Your task to perform on an android device: change keyboard looks Image 0: 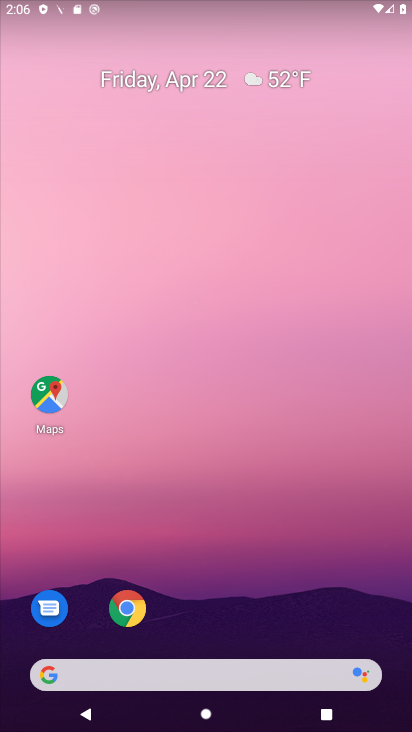
Step 0: drag from (282, 507) to (284, 121)
Your task to perform on an android device: change keyboard looks Image 1: 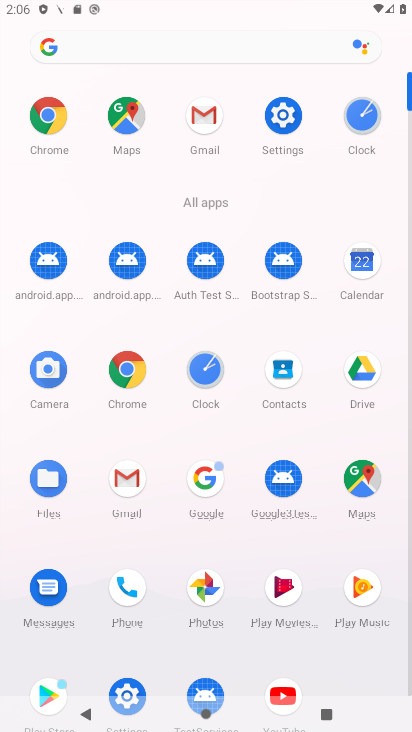
Step 1: click (287, 125)
Your task to perform on an android device: change keyboard looks Image 2: 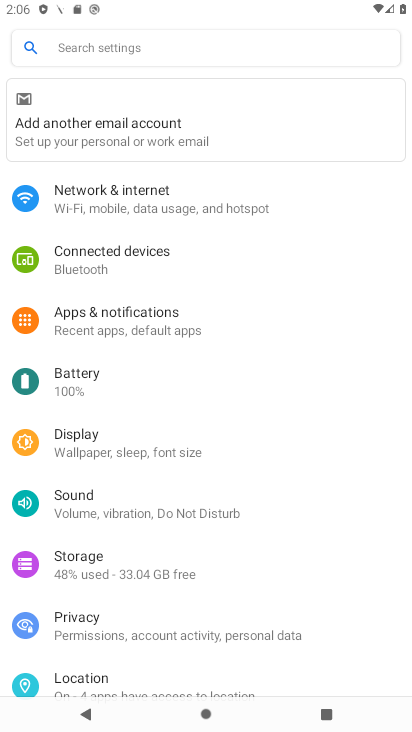
Step 2: drag from (189, 569) to (211, 244)
Your task to perform on an android device: change keyboard looks Image 3: 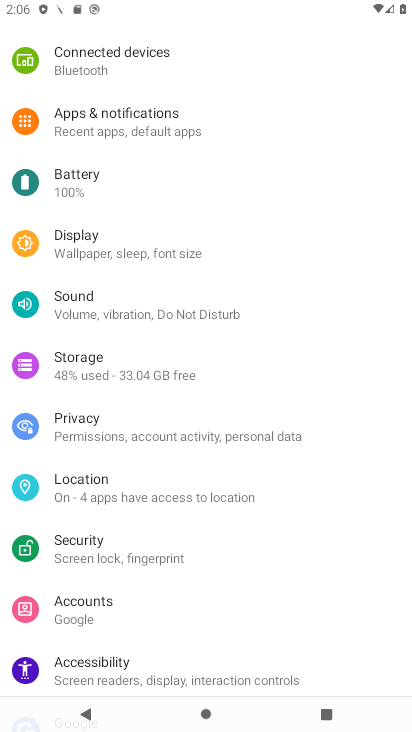
Step 3: drag from (253, 559) to (249, 197)
Your task to perform on an android device: change keyboard looks Image 4: 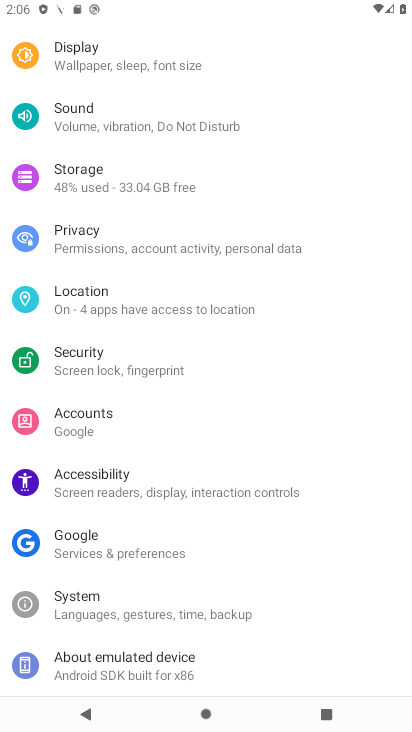
Step 4: click (183, 613)
Your task to perform on an android device: change keyboard looks Image 5: 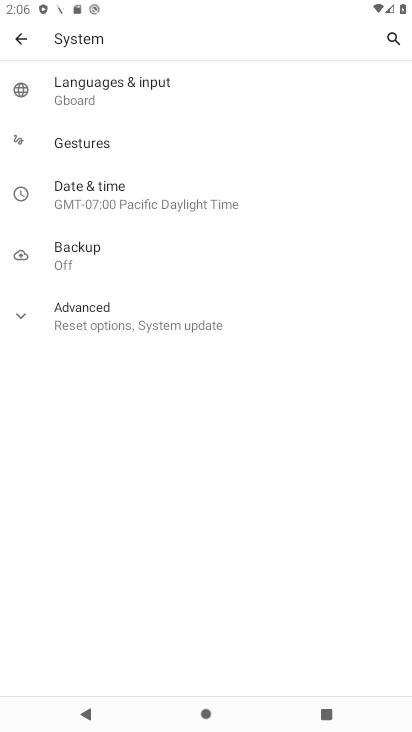
Step 5: click (136, 99)
Your task to perform on an android device: change keyboard looks Image 6: 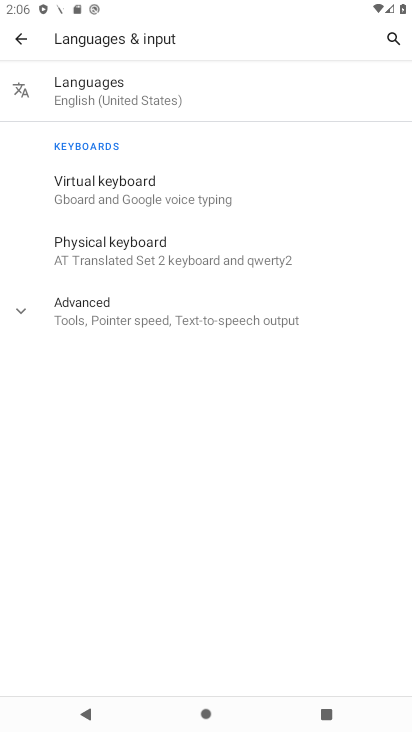
Step 6: click (132, 182)
Your task to perform on an android device: change keyboard looks Image 7: 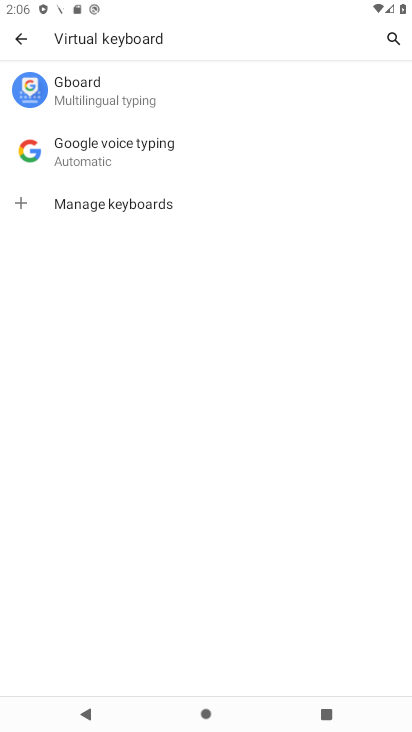
Step 7: click (130, 95)
Your task to perform on an android device: change keyboard looks Image 8: 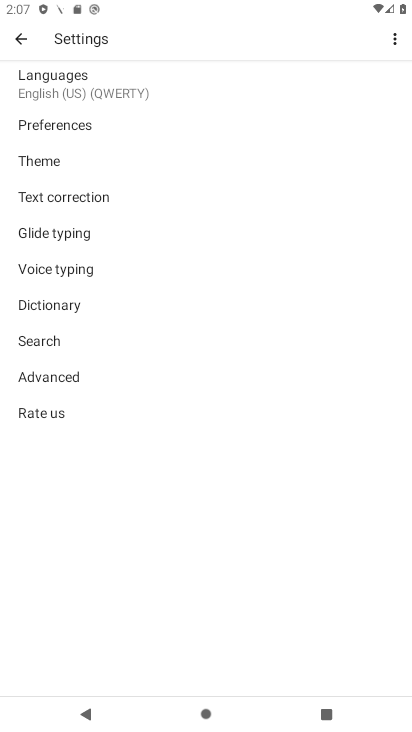
Step 8: click (39, 157)
Your task to perform on an android device: change keyboard looks Image 9: 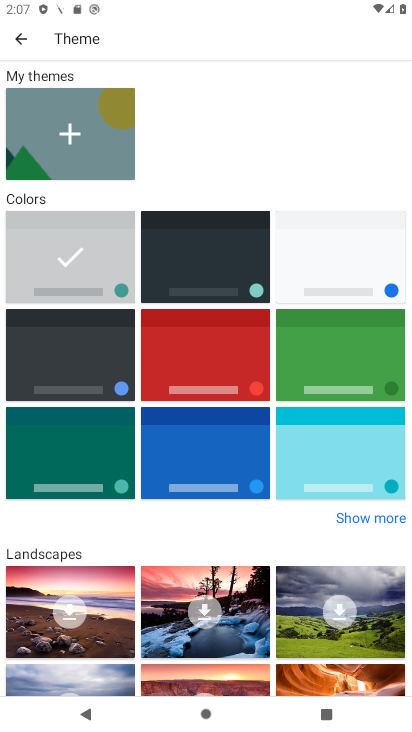
Step 9: click (197, 247)
Your task to perform on an android device: change keyboard looks Image 10: 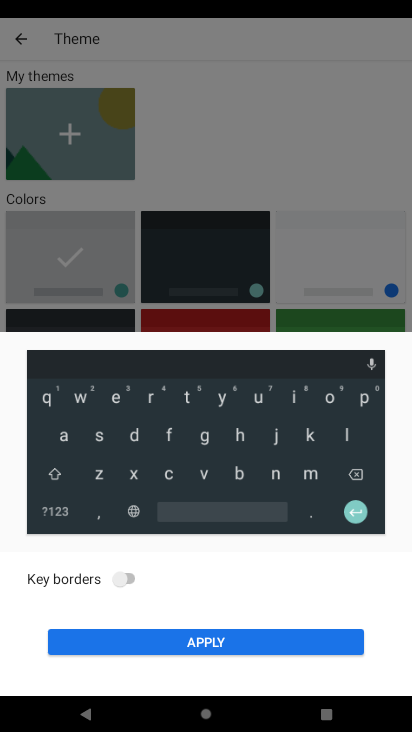
Step 10: click (131, 572)
Your task to perform on an android device: change keyboard looks Image 11: 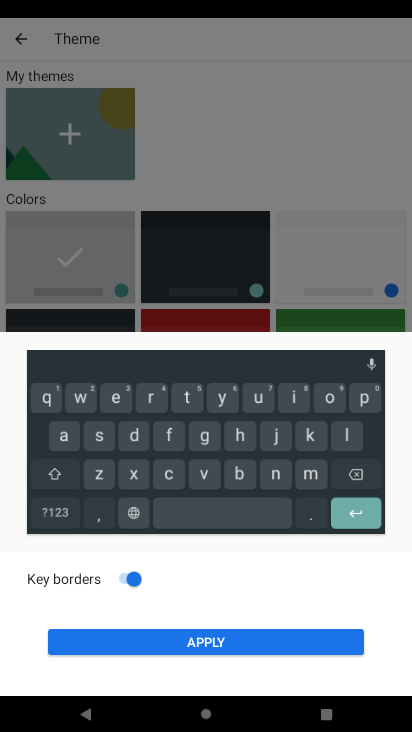
Step 11: click (229, 641)
Your task to perform on an android device: change keyboard looks Image 12: 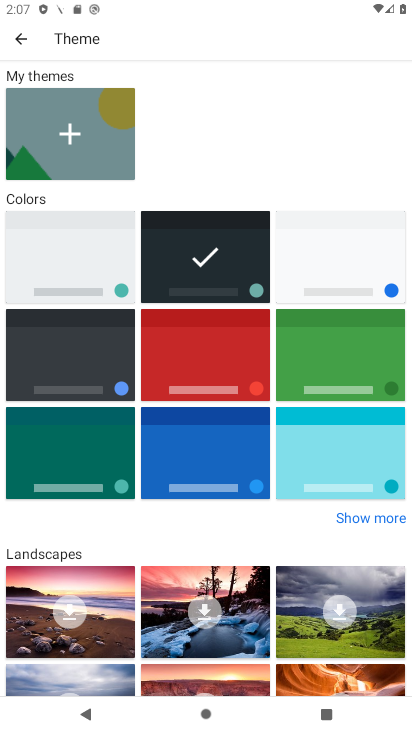
Step 12: task complete